Your task to perform on an android device: turn on improve location accuracy Image 0: 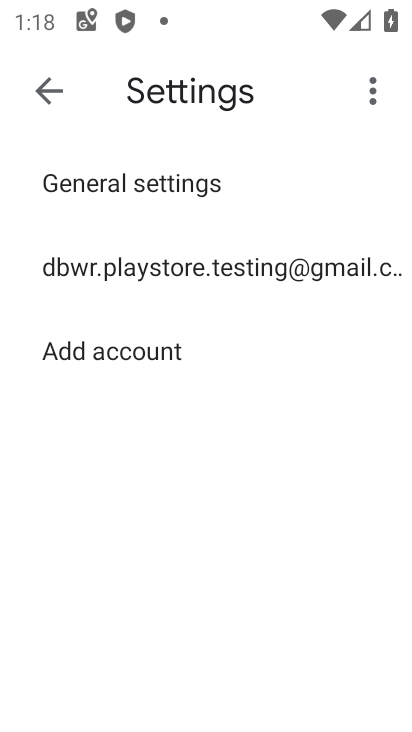
Step 0: press home button
Your task to perform on an android device: turn on improve location accuracy Image 1: 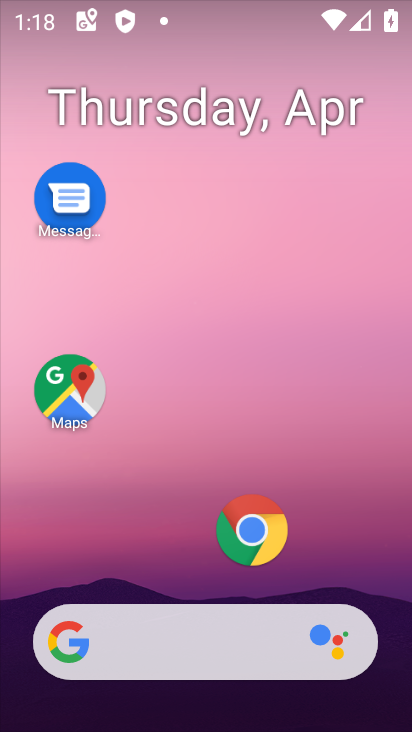
Step 1: drag from (191, 532) to (262, 35)
Your task to perform on an android device: turn on improve location accuracy Image 2: 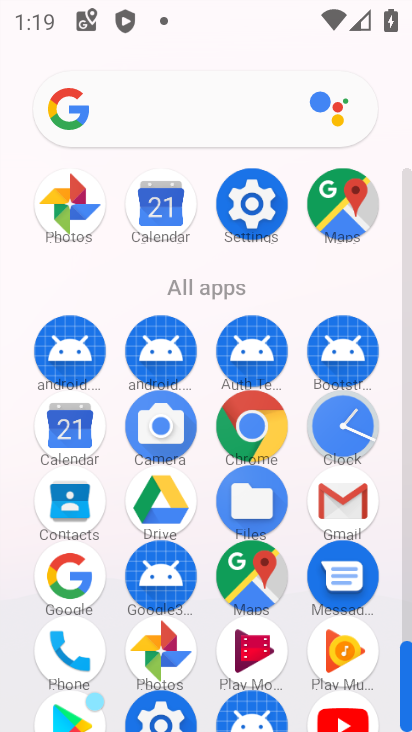
Step 2: click (246, 215)
Your task to perform on an android device: turn on improve location accuracy Image 3: 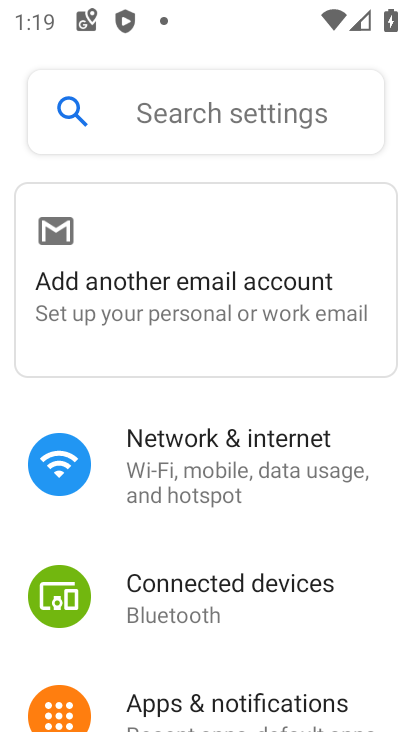
Step 3: drag from (253, 617) to (217, 211)
Your task to perform on an android device: turn on improve location accuracy Image 4: 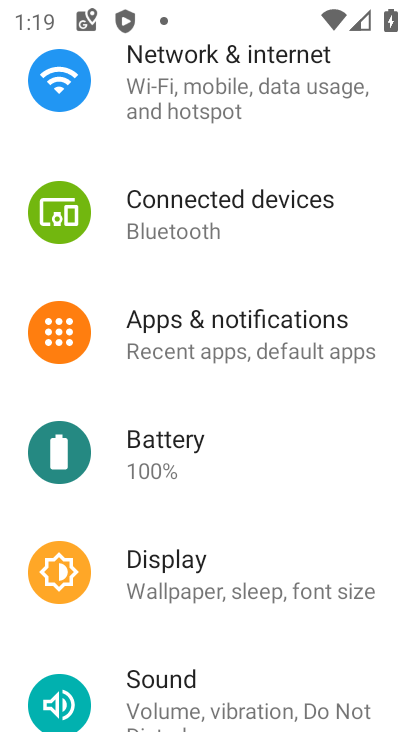
Step 4: drag from (247, 612) to (219, 241)
Your task to perform on an android device: turn on improve location accuracy Image 5: 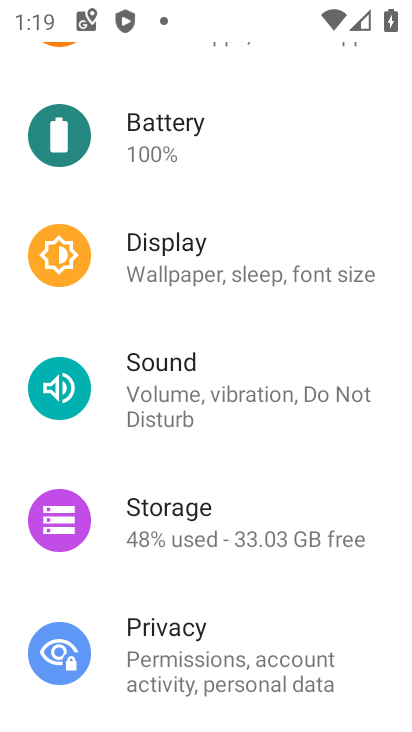
Step 5: drag from (225, 681) to (187, 271)
Your task to perform on an android device: turn on improve location accuracy Image 6: 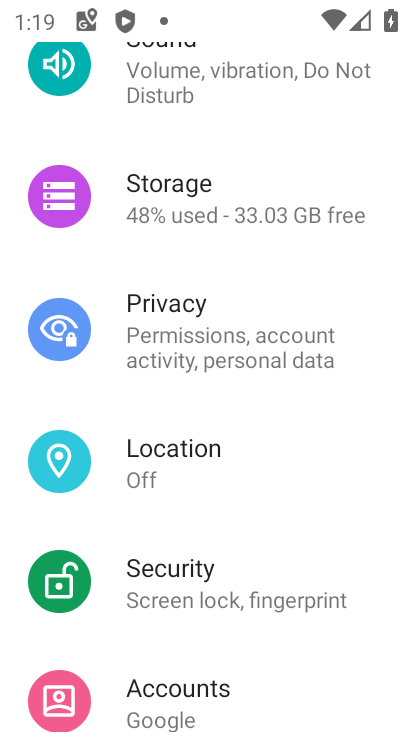
Step 6: click (212, 463)
Your task to perform on an android device: turn on improve location accuracy Image 7: 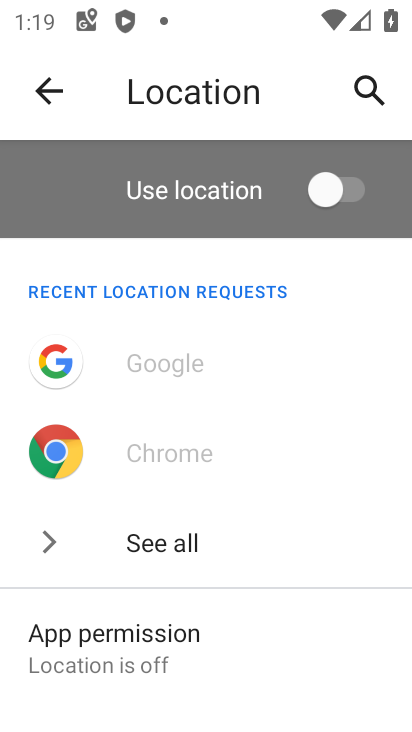
Step 7: drag from (227, 650) to (160, 299)
Your task to perform on an android device: turn on improve location accuracy Image 8: 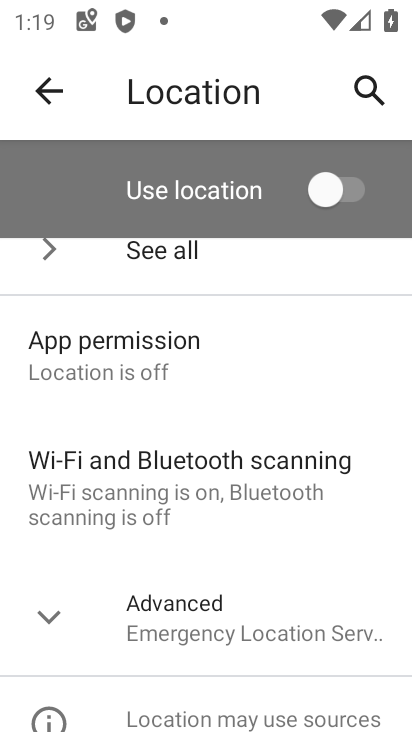
Step 8: click (173, 616)
Your task to perform on an android device: turn on improve location accuracy Image 9: 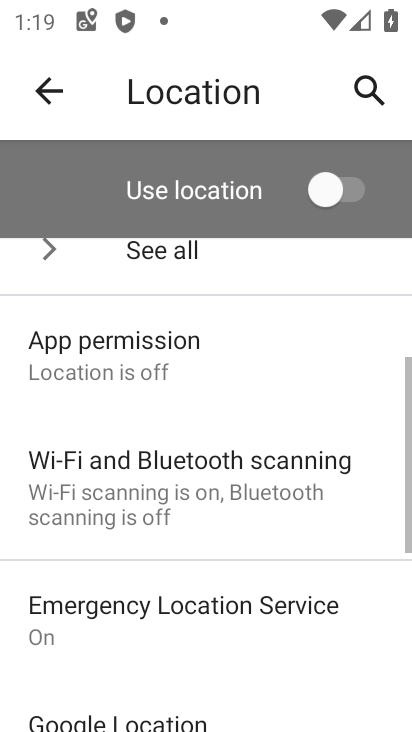
Step 9: drag from (252, 583) to (213, 223)
Your task to perform on an android device: turn on improve location accuracy Image 10: 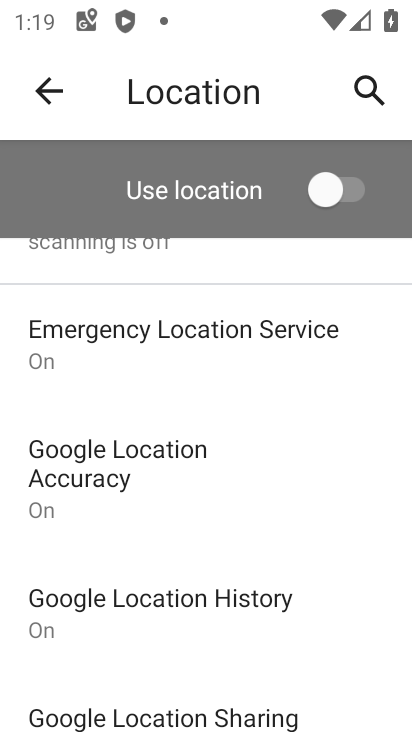
Step 10: click (155, 468)
Your task to perform on an android device: turn on improve location accuracy Image 11: 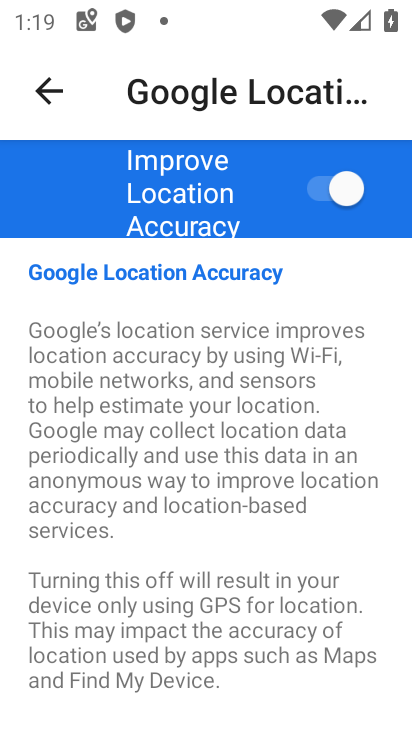
Step 11: task complete